Your task to perform on an android device: open chrome privacy settings Image 0: 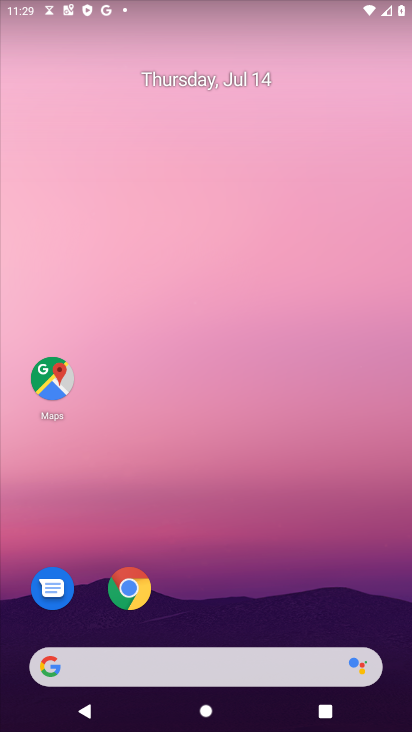
Step 0: click (137, 589)
Your task to perform on an android device: open chrome privacy settings Image 1: 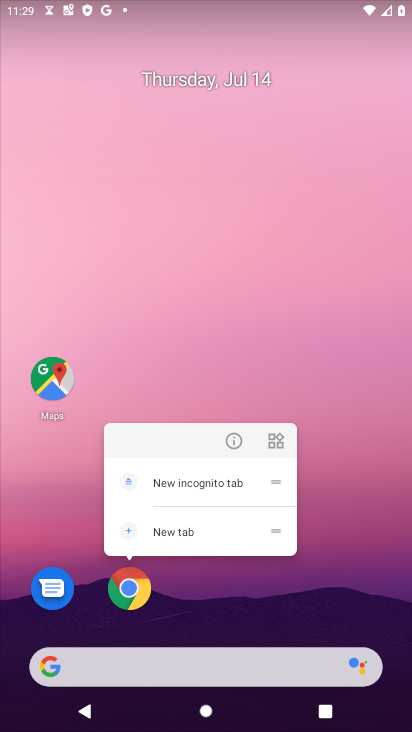
Step 1: click (129, 592)
Your task to perform on an android device: open chrome privacy settings Image 2: 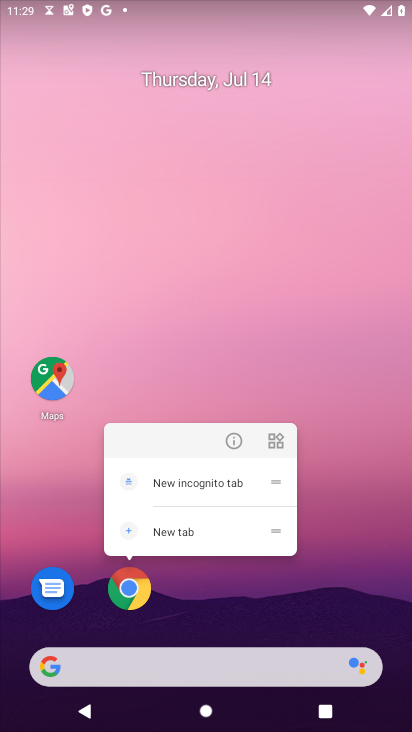
Step 2: click (102, 598)
Your task to perform on an android device: open chrome privacy settings Image 3: 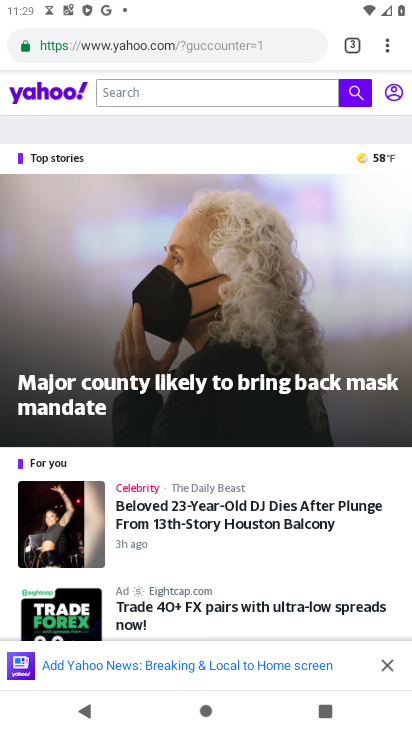
Step 3: drag from (384, 42) to (211, 554)
Your task to perform on an android device: open chrome privacy settings Image 4: 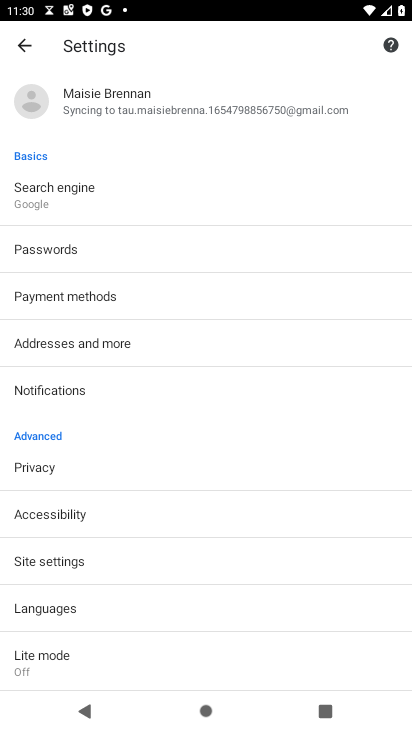
Step 4: click (51, 470)
Your task to perform on an android device: open chrome privacy settings Image 5: 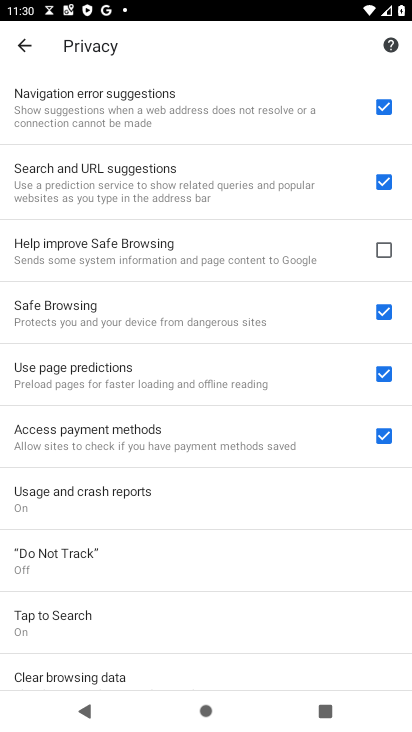
Step 5: task complete